Your task to perform on an android device: allow cookies in the chrome app Image 0: 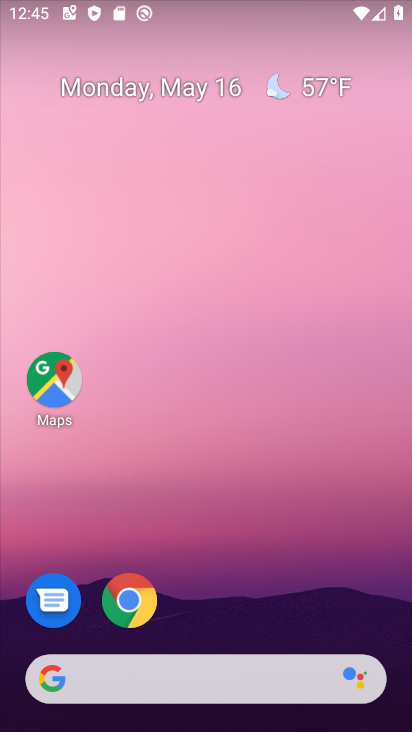
Step 0: click (122, 602)
Your task to perform on an android device: allow cookies in the chrome app Image 1: 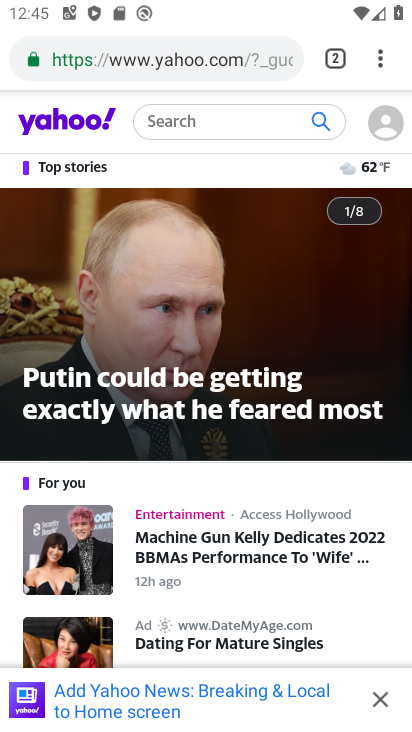
Step 1: drag from (382, 56) to (196, 635)
Your task to perform on an android device: allow cookies in the chrome app Image 2: 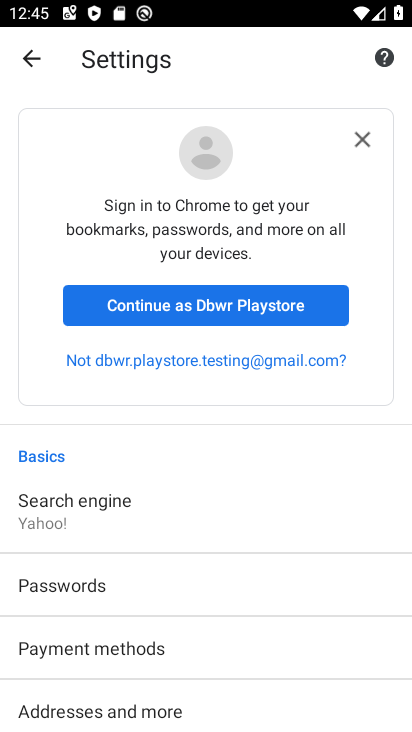
Step 2: drag from (183, 631) to (266, 338)
Your task to perform on an android device: allow cookies in the chrome app Image 3: 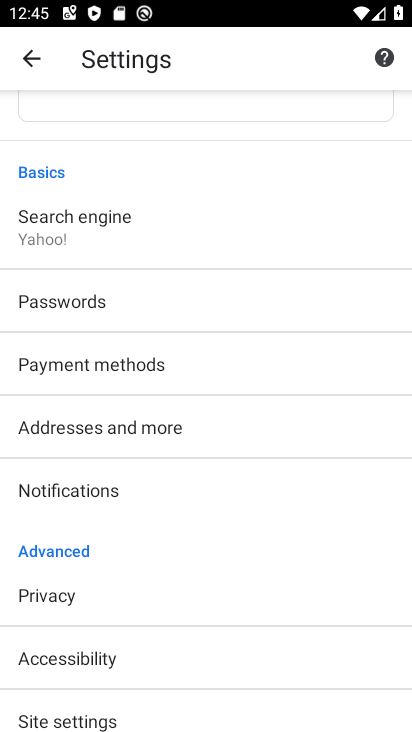
Step 3: drag from (112, 660) to (208, 295)
Your task to perform on an android device: allow cookies in the chrome app Image 4: 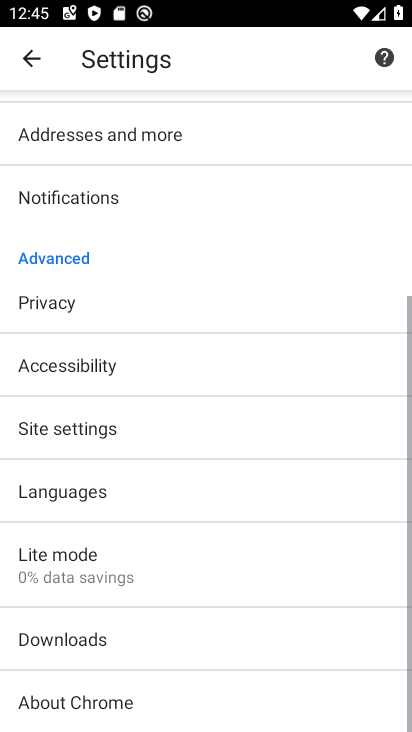
Step 4: click (43, 416)
Your task to perform on an android device: allow cookies in the chrome app Image 5: 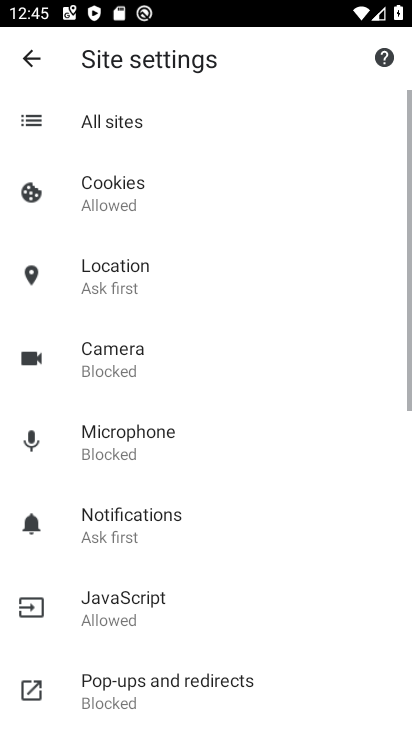
Step 5: click (118, 188)
Your task to perform on an android device: allow cookies in the chrome app Image 6: 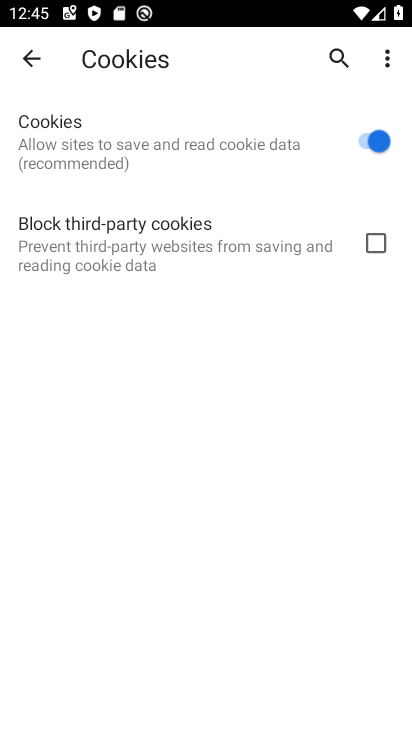
Step 6: task complete